Your task to perform on an android device: turn notification dots on Image 0: 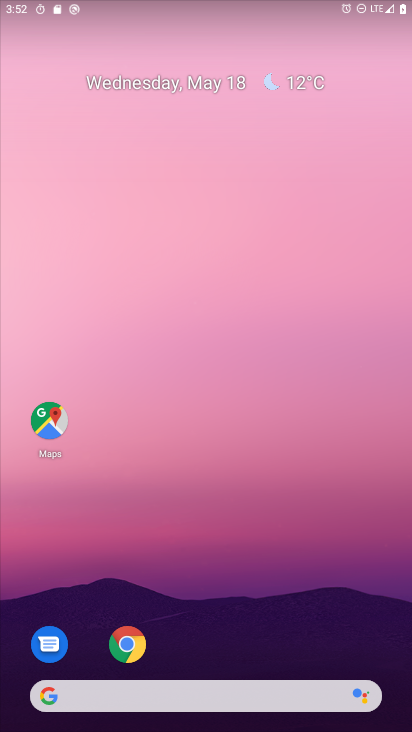
Step 0: drag from (400, 611) to (411, 61)
Your task to perform on an android device: turn notification dots on Image 1: 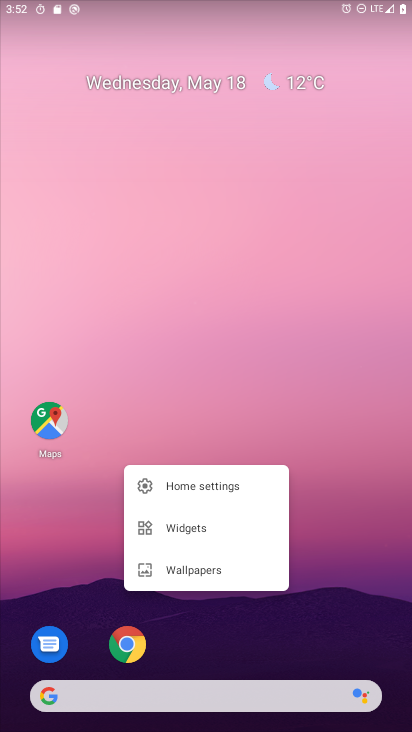
Step 1: drag from (406, 680) to (341, 82)
Your task to perform on an android device: turn notification dots on Image 2: 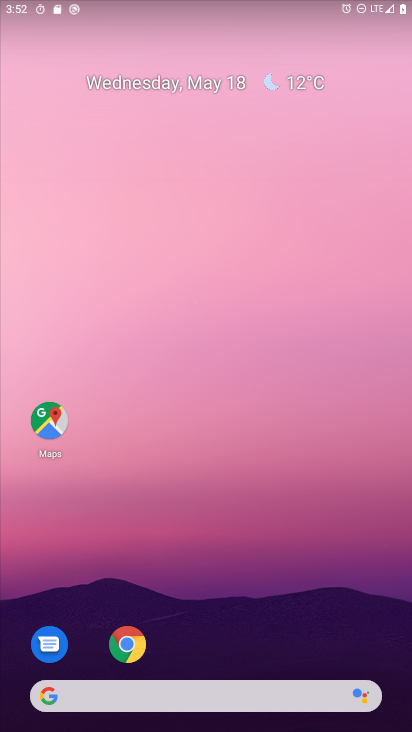
Step 2: drag from (391, 700) to (357, 132)
Your task to perform on an android device: turn notification dots on Image 3: 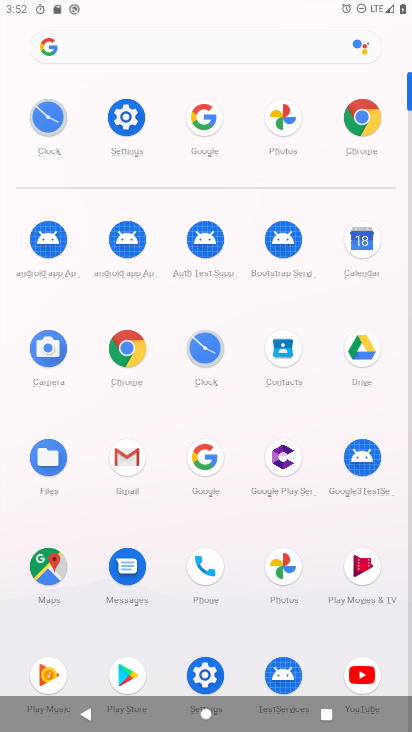
Step 3: click (120, 126)
Your task to perform on an android device: turn notification dots on Image 4: 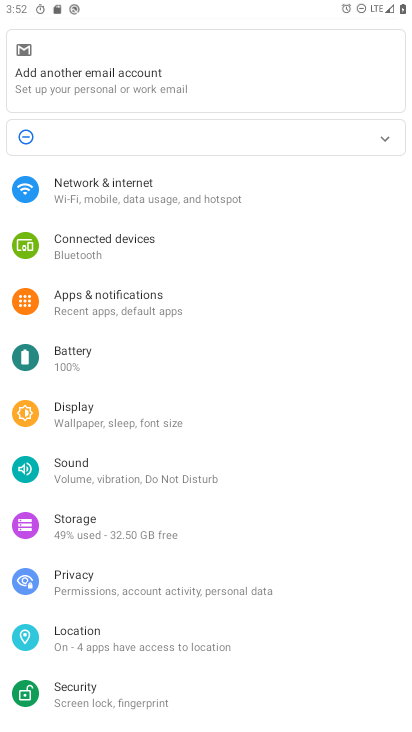
Step 4: click (80, 299)
Your task to perform on an android device: turn notification dots on Image 5: 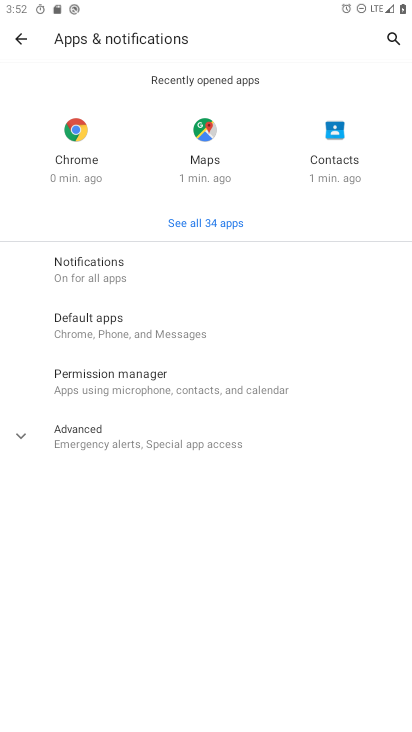
Step 5: click (102, 271)
Your task to perform on an android device: turn notification dots on Image 6: 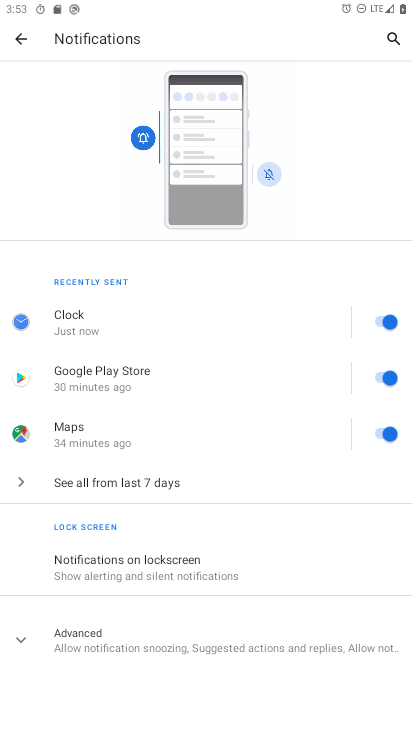
Step 6: click (21, 644)
Your task to perform on an android device: turn notification dots on Image 7: 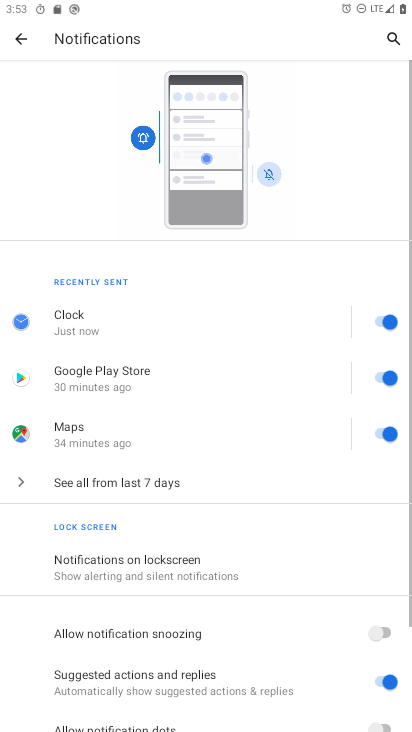
Step 7: drag from (264, 625) to (284, 244)
Your task to perform on an android device: turn notification dots on Image 8: 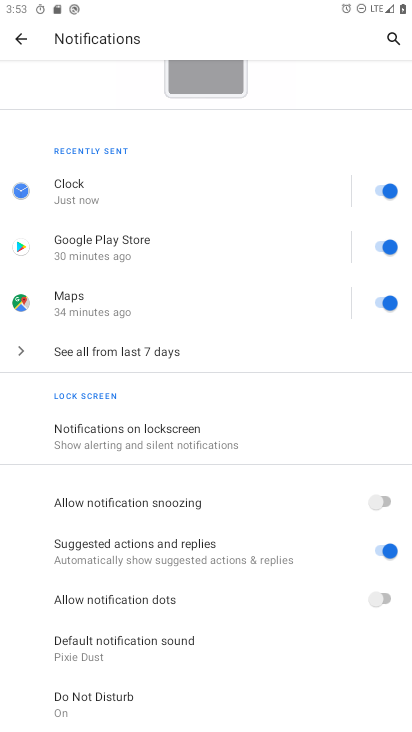
Step 8: click (391, 600)
Your task to perform on an android device: turn notification dots on Image 9: 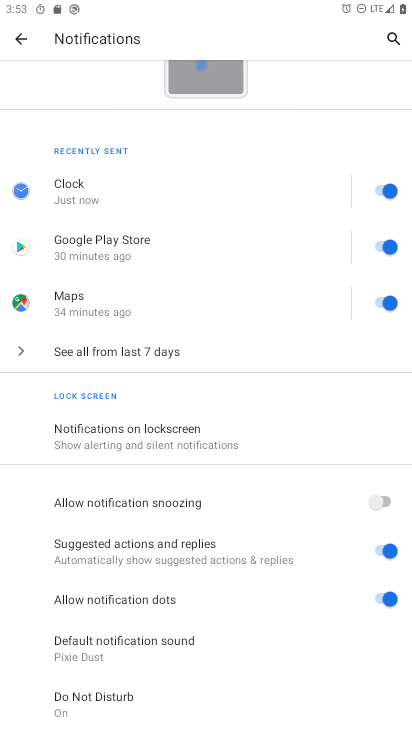
Step 9: task complete